Your task to perform on an android device: What's the weather today? Image 0: 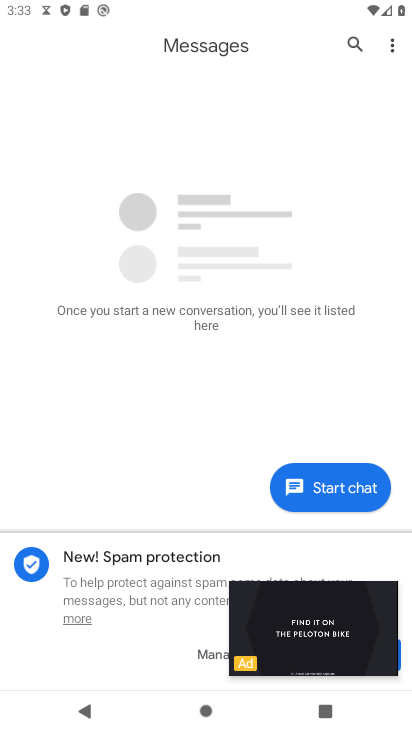
Step 0: click (324, 628)
Your task to perform on an android device: What's the weather today? Image 1: 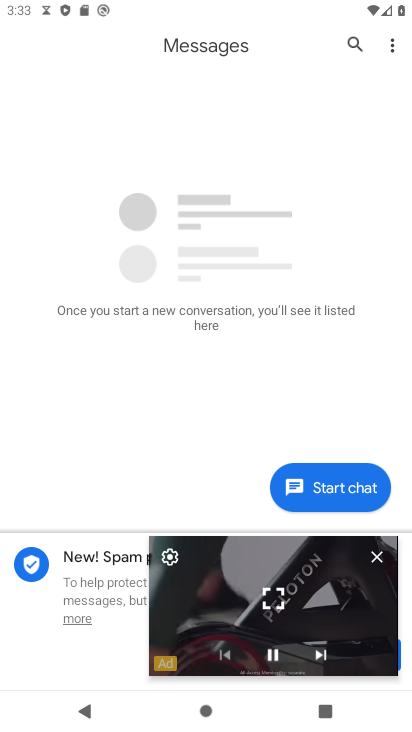
Step 1: click (377, 552)
Your task to perform on an android device: What's the weather today? Image 2: 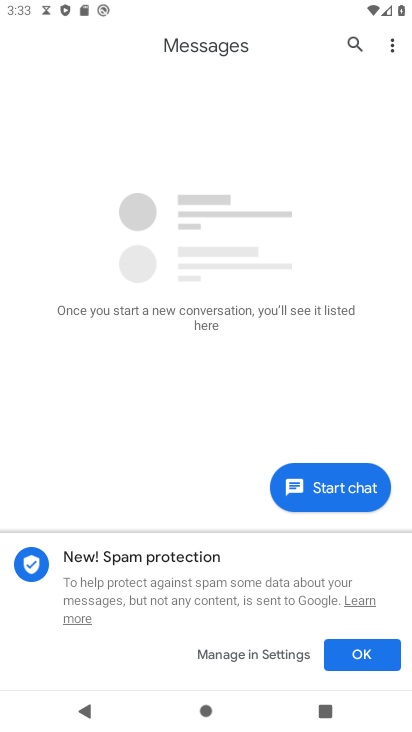
Step 2: press home button
Your task to perform on an android device: What's the weather today? Image 3: 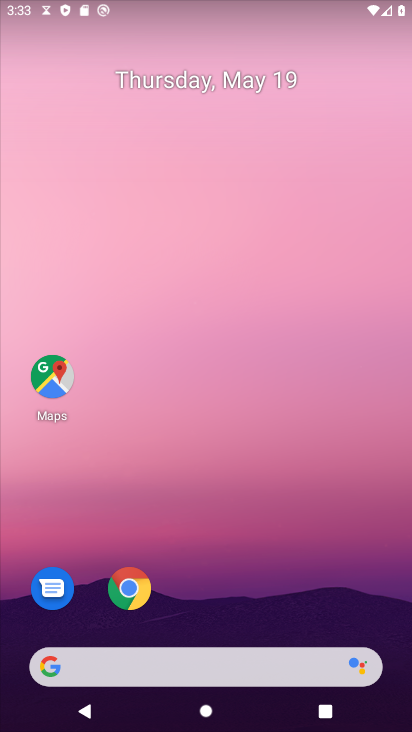
Step 3: click (220, 682)
Your task to perform on an android device: What's the weather today? Image 4: 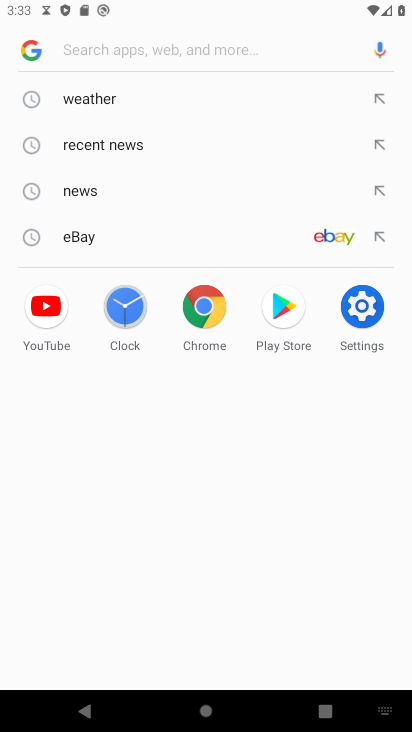
Step 4: click (95, 110)
Your task to perform on an android device: What's the weather today? Image 5: 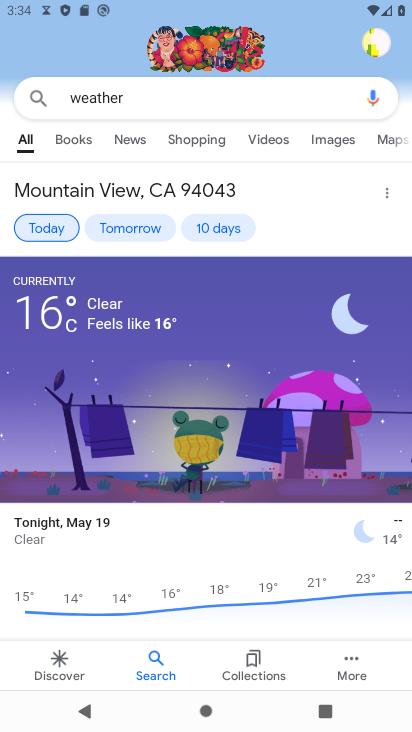
Step 5: task complete